Your task to perform on an android device: Go to CNN.com Image 0: 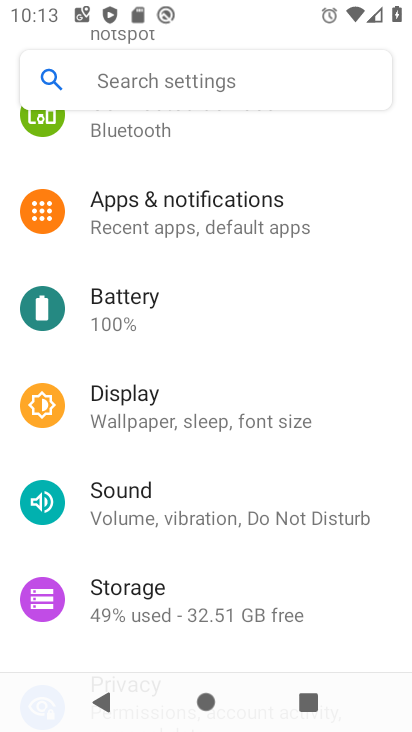
Step 0: press home button
Your task to perform on an android device: Go to CNN.com Image 1: 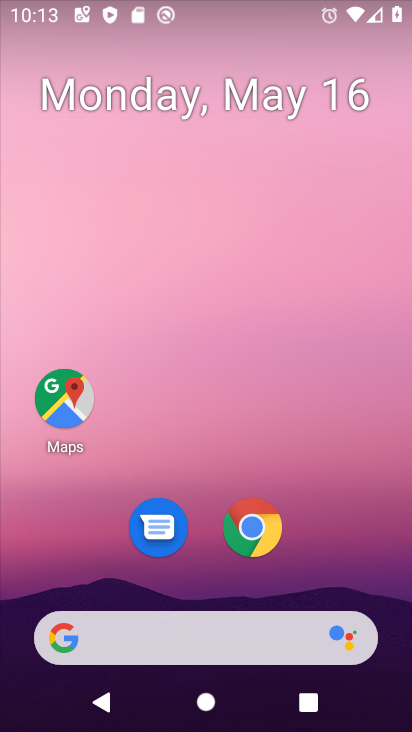
Step 1: click (260, 526)
Your task to perform on an android device: Go to CNN.com Image 2: 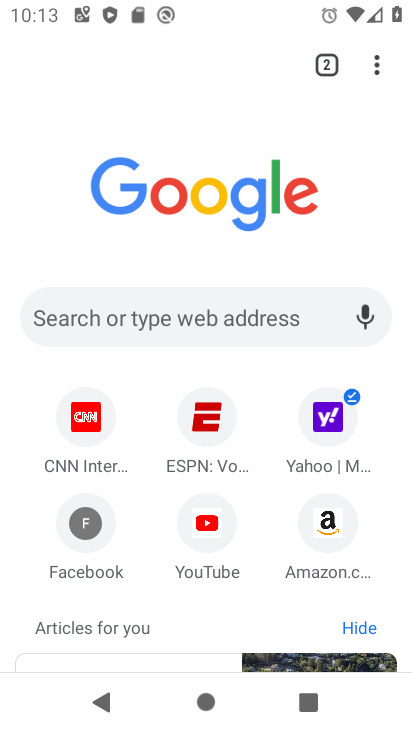
Step 2: click (83, 326)
Your task to perform on an android device: Go to CNN.com Image 3: 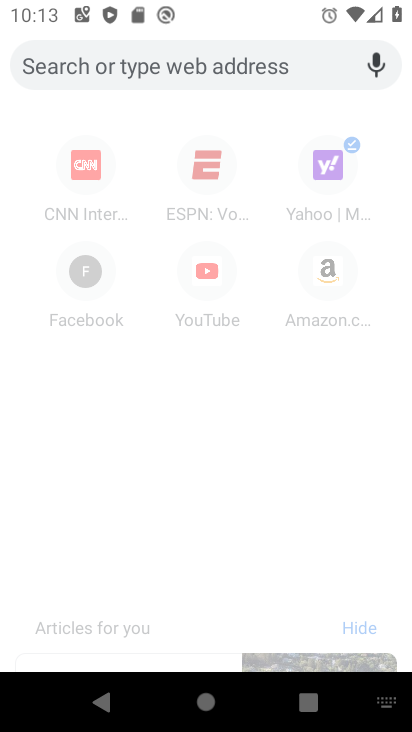
Step 3: click (92, 163)
Your task to perform on an android device: Go to CNN.com Image 4: 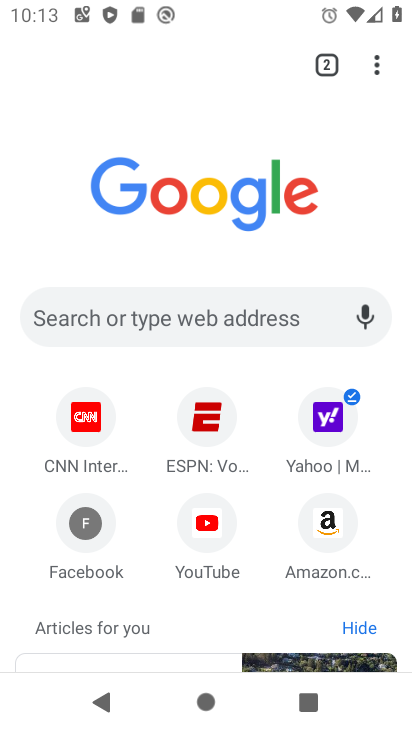
Step 4: click (94, 417)
Your task to perform on an android device: Go to CNN.com Image 5: 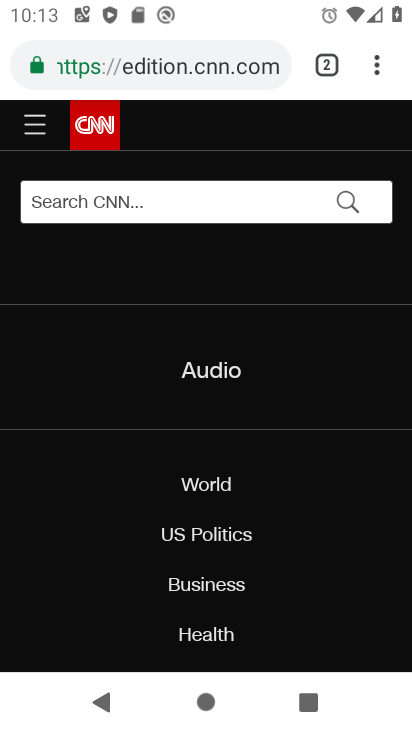
Step 5: task complete